Your task to perform on an android device: turn on data saver in the chrome app Image 0: 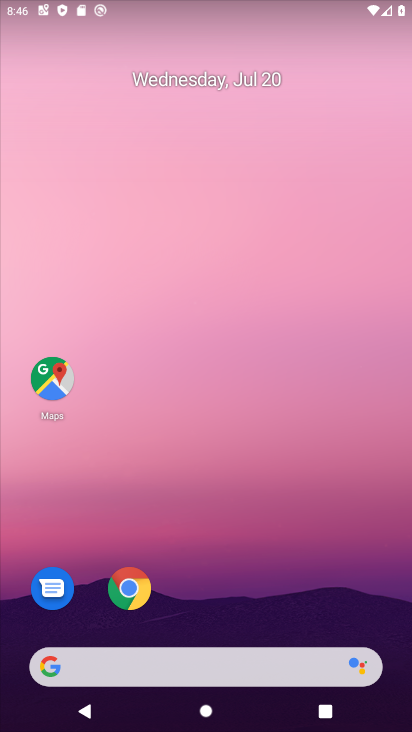
Step 0: click (142, 600)
Your task to perform on an android device: turn on data saver in the chrome app Image 1: 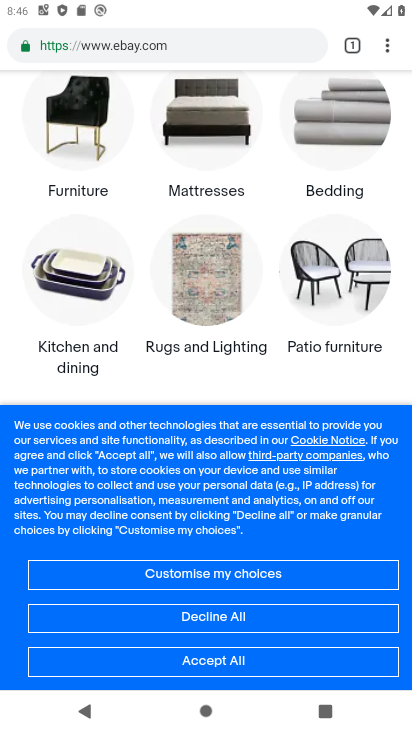
Step 1: click (391, 51)
Your task to perform on an android device: turn on data saver in the chrome app Image 2: 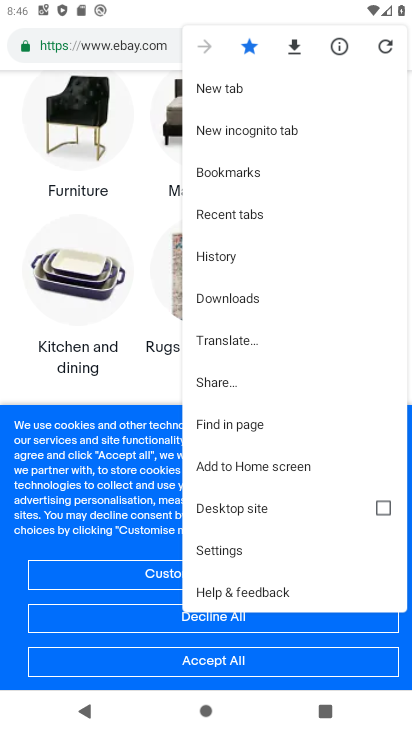
Step 2: click (225, 547)
Your task to perform on an android device: turn on data saver in the chrome app Image 3: 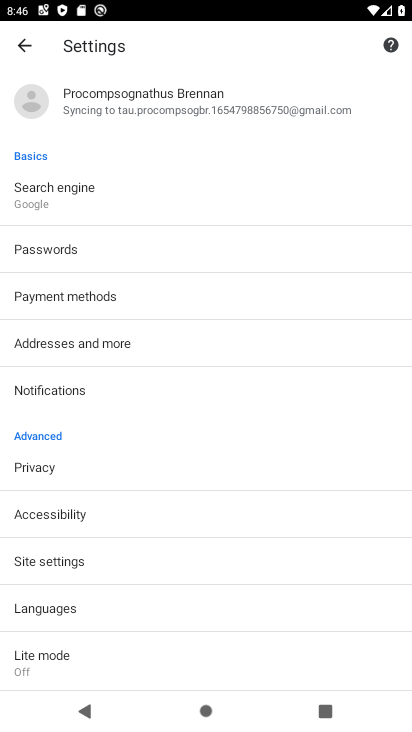
Step 3: click (94, 656)
Your task to perform on an android device: turn on data saver in the chrome app Image 4: 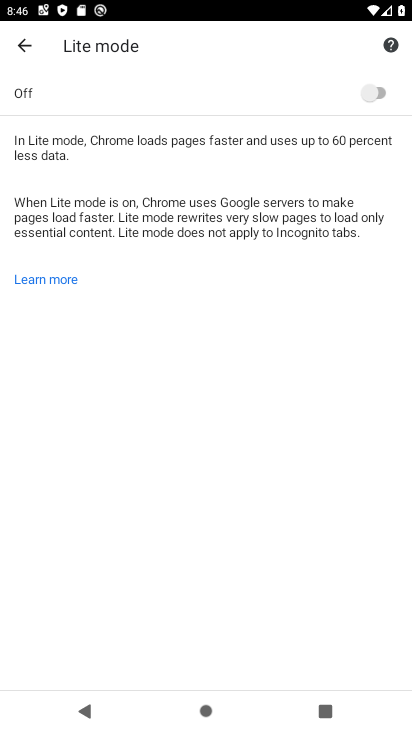
Step 4: click (384, 91)
Your task to perform on an android device: turn on data saver in the chrome app Image 5: 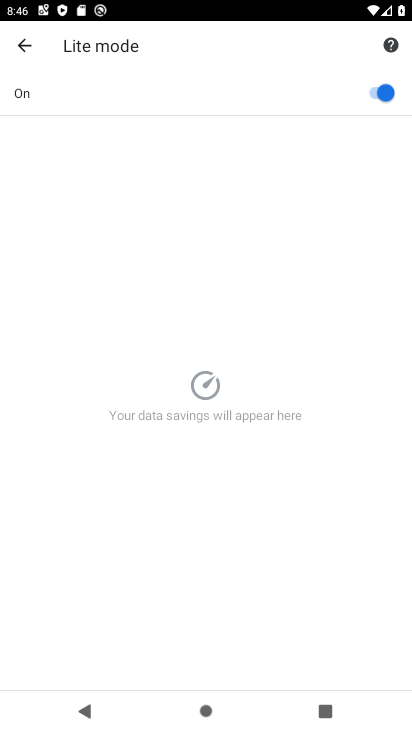
Step 5: task complete